Your task to perform on an android device: Is it going to rain today? Image 0: 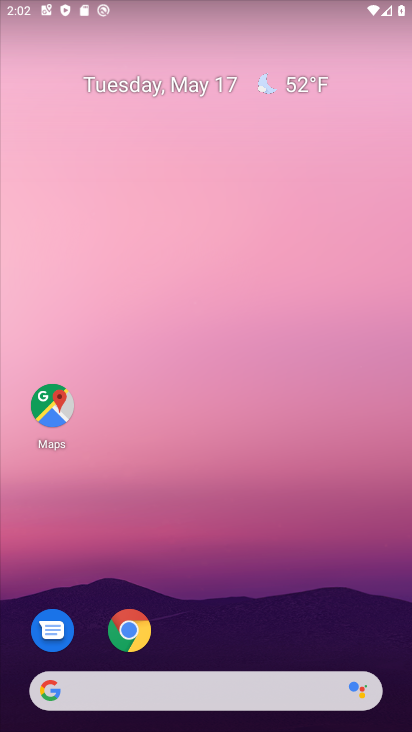
Step 0: click (266, 88)
Your task to perform on an android device: Is it going to rain today? Image 1: 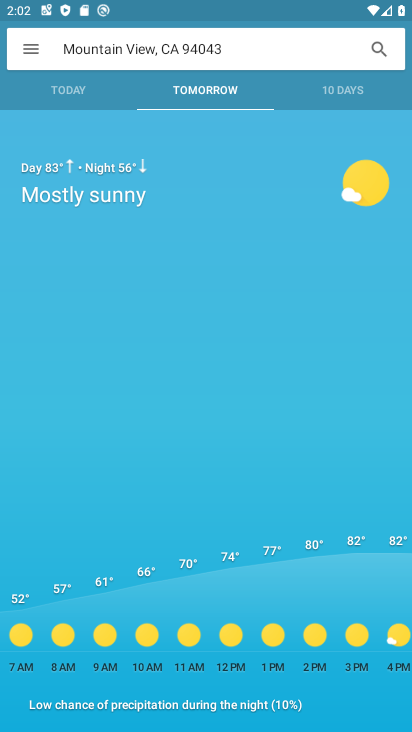
Step 1: click (48, 99)
Your task to perform on an android device: Is it going to rain today? Image 2: 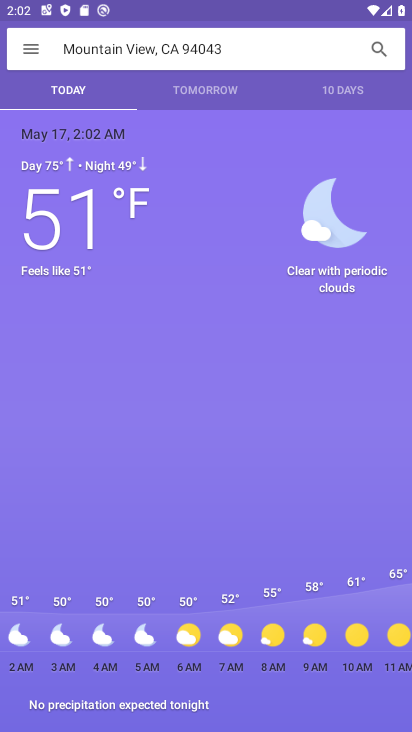
Step 2: task complete